Your task to perform on an android device: Is it going to rain today? Image 0: 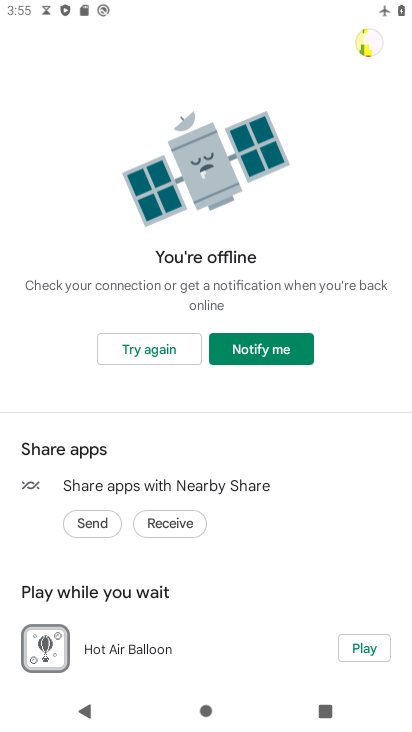
Step 0: press home button
Your task to perform on an android device: Is it going to rain today? Image 1: 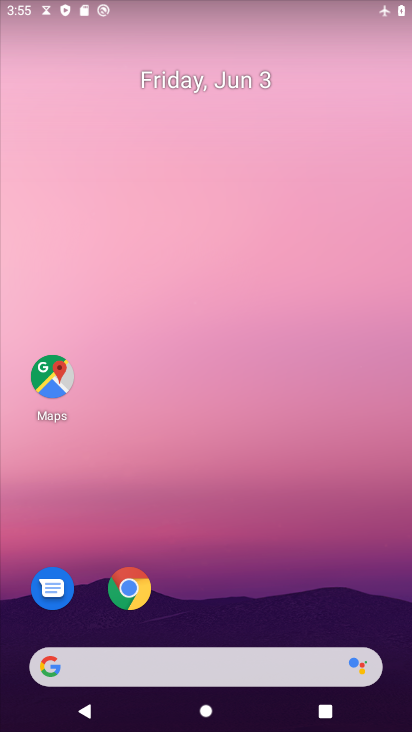
Step 1: drag from (218, 618) to (226, 227)
Your task to perform on an android device: Is it going to rain today? Image 2: 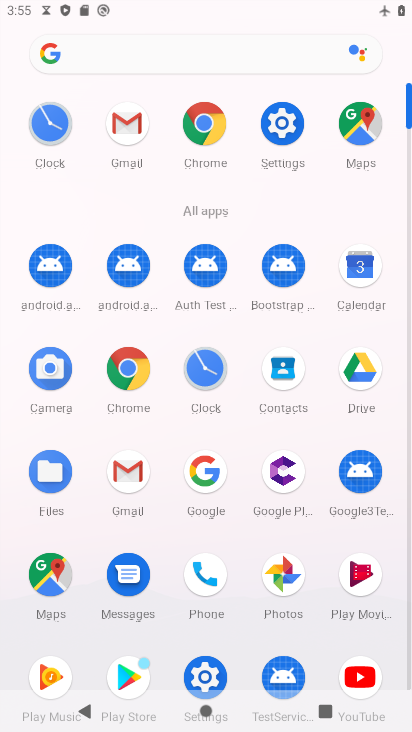
Step 2: click (175, 62)
Your task to perform on an android device: Is it going to rain today? Image 3: 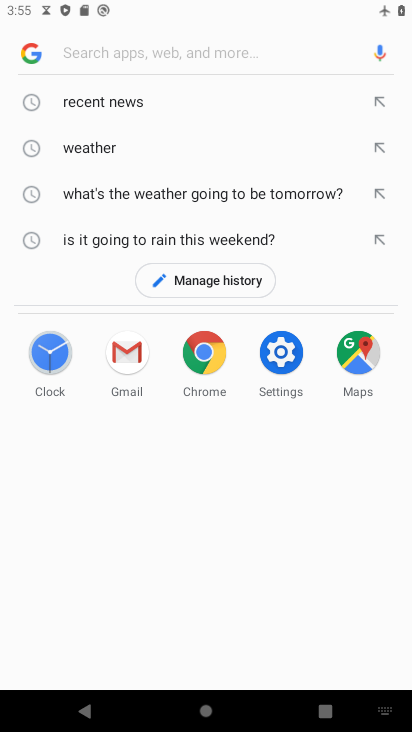
Step 3: type "Is it going to rain today?"
Your task to perform on an android device: Is it going to rain today? Image 4: 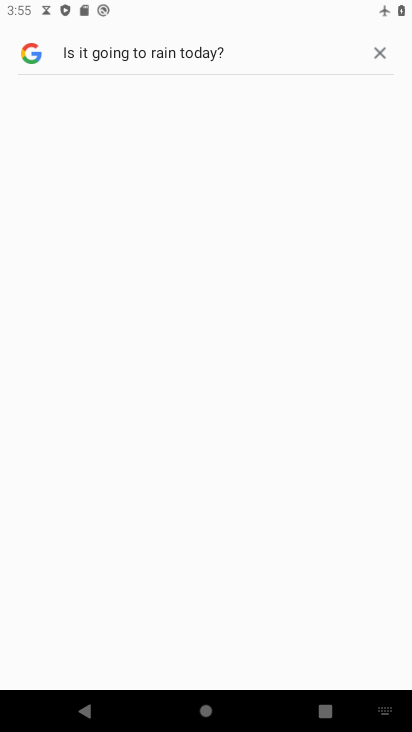
Step 4: press enter
Your task to perform on an android device: Is it going to rain today? Image 5: 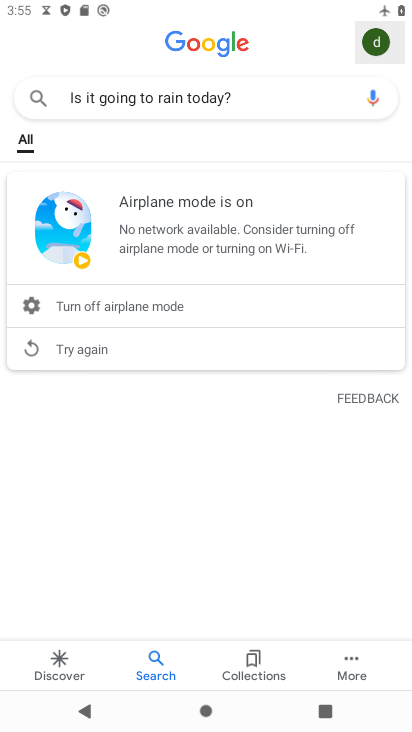
Step 5: task complete